Your task to perform on an android device: change your default location settings in chrome Image 0: 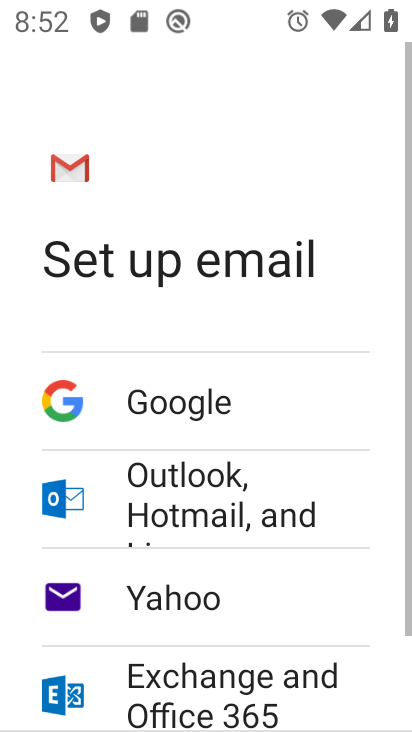
Step 0: press home button
Your task to perform on an android device: change your default location settings in chrome Image 1: 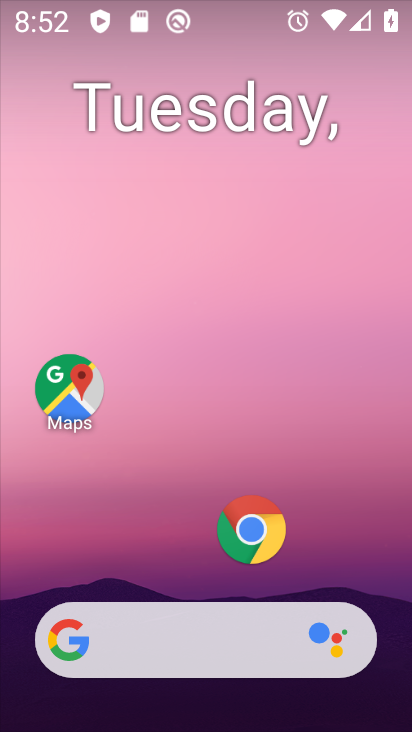
Step 1: click (251, 523)
Your task to perform on an android device: change your default location settings in chrome Image 2: 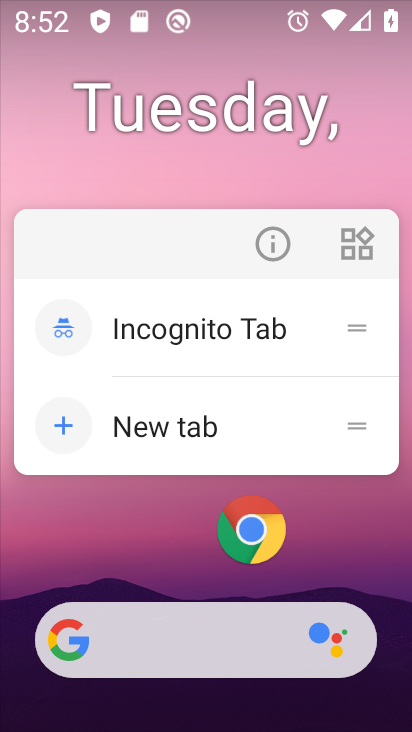
Step 2: click (163, 526)
Your task to perform on an android device: change your default location settings in chrome Image 3: 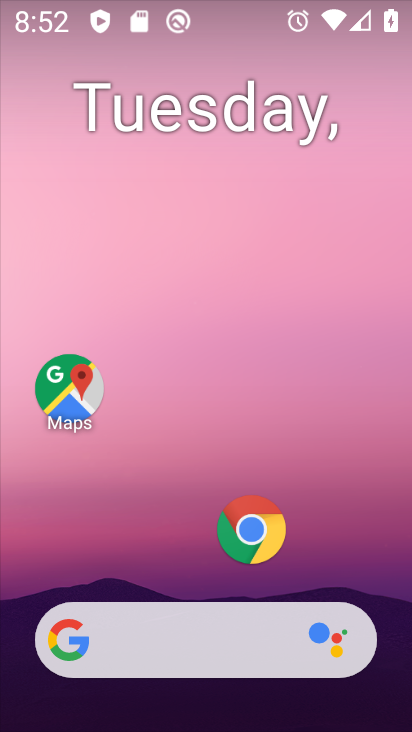
Step 3: click (248, 524)
Your task to perform on an android device: change your default location settings in chrome Image 4: 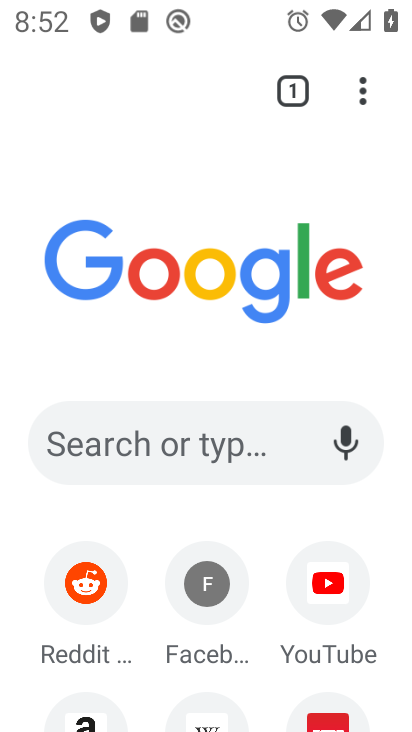
Step 4: click (362, 84)
Your task to perform on an android device: change your default location settings in chrome Image 5: 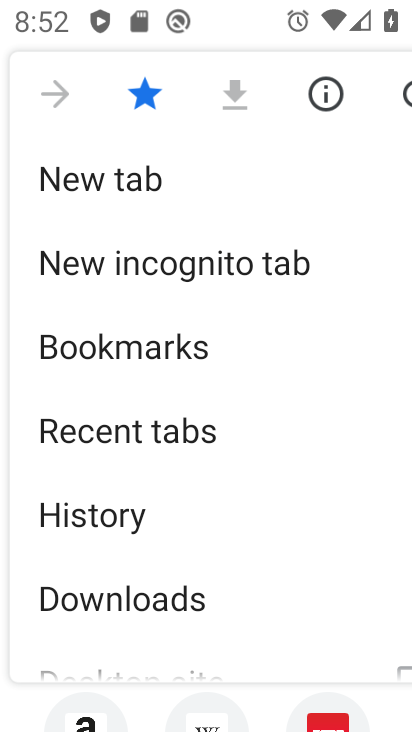
Step 5: drag from (214, 617) to (193, 233)
Your task to perform on an android device: change your default location settings in chrome Image 6: 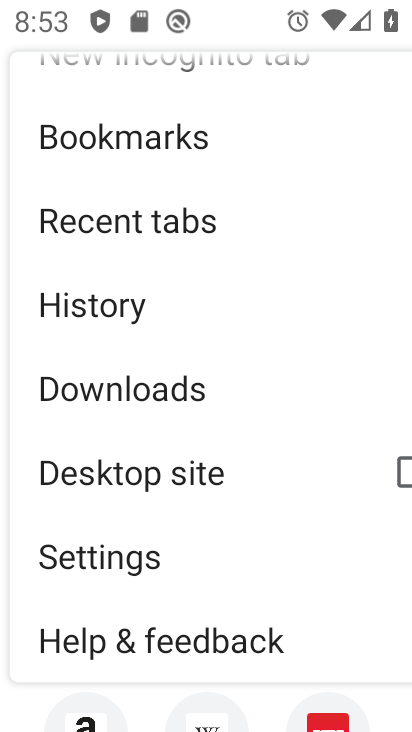
Step 6: click (173, 550)
Your task to perform on an android device: change your default location settings in chrome Image 7: 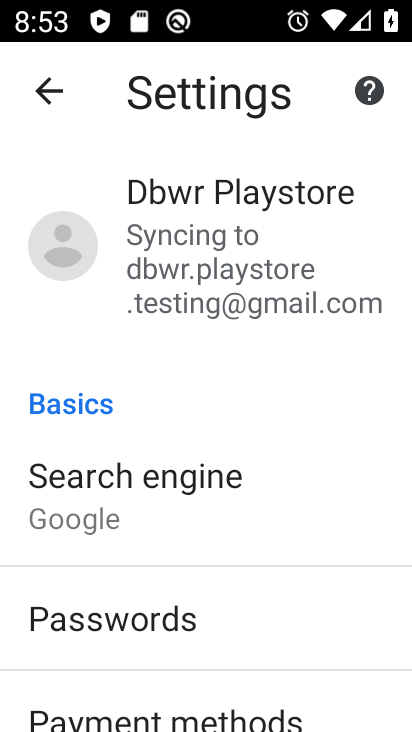
Step 7: drag from (232, 629) to (216, 230)
Your task to perform on an android device: change your default location settings in chrome Image 8: 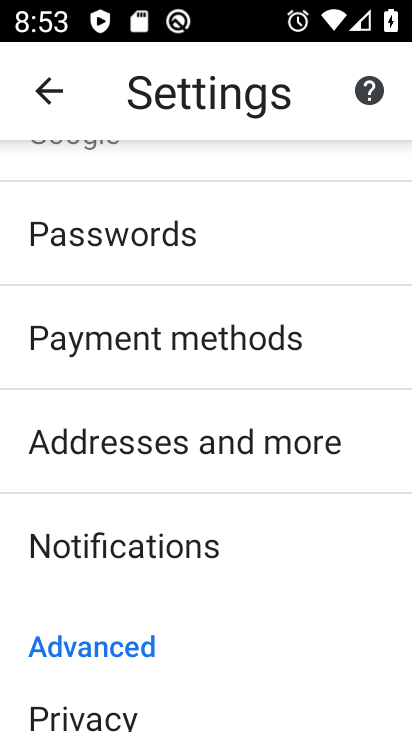
Step 8: drag from (204, 656) to (224, 189)
Your task to perform on an android device: change your default location settings in chrome Image 9: 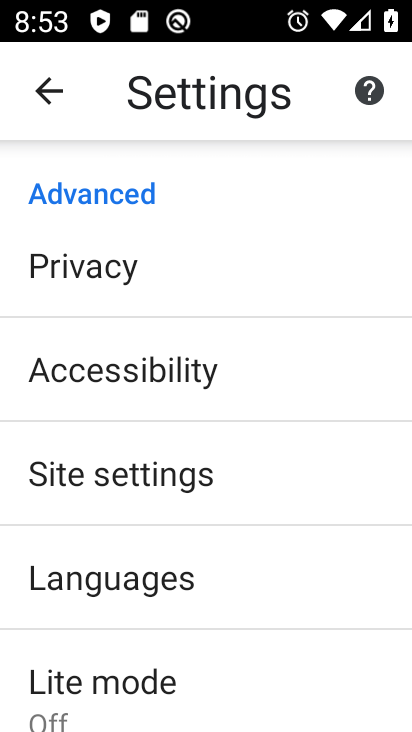
Step 9: click (238, 479)
Your task to perform on an android device: change your default location settings in chrome Image 10: 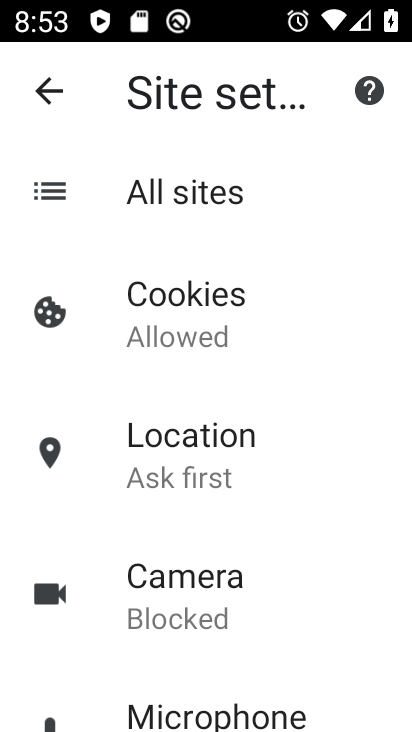
Step 10: click (257, 472)
Your task to perform on an android device: change your default location settings in chrome Image 11: 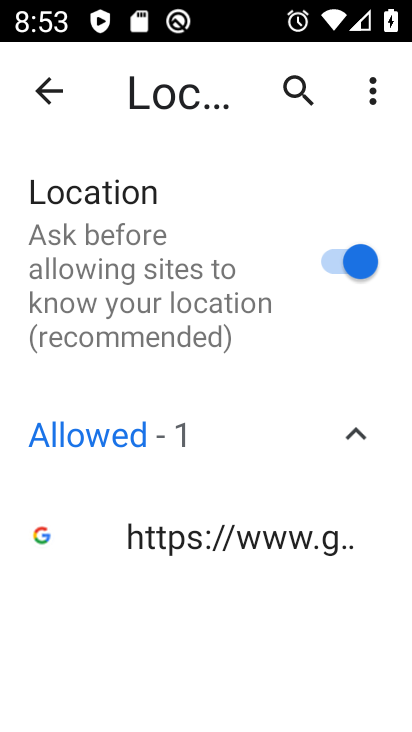
Step 11: click (352, 431)
Your task to perform on an android device: change your default location settings in chrome Image 12: 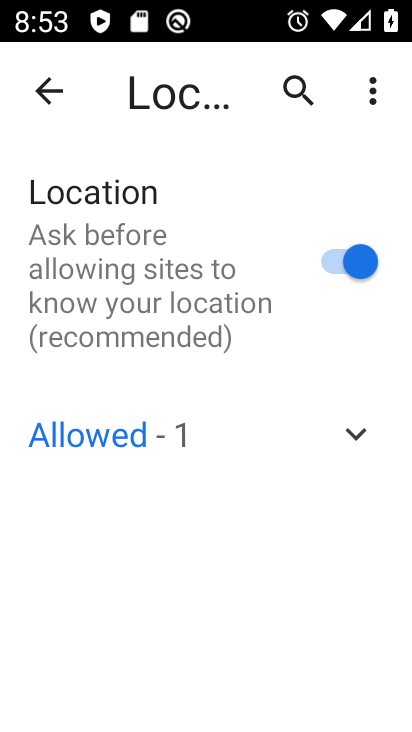
Step 12: click (337, 260)
Your task to perform on an android device: change your default location settings in chrome Image 13: 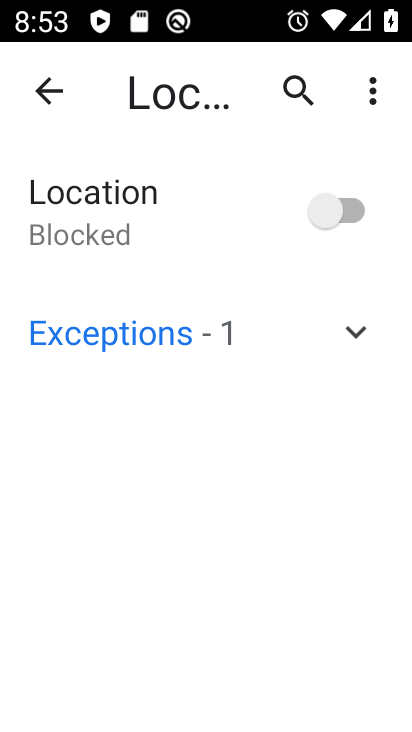
Step 13: task complete